Your task to perform on an android device: change timer sound Image 0: 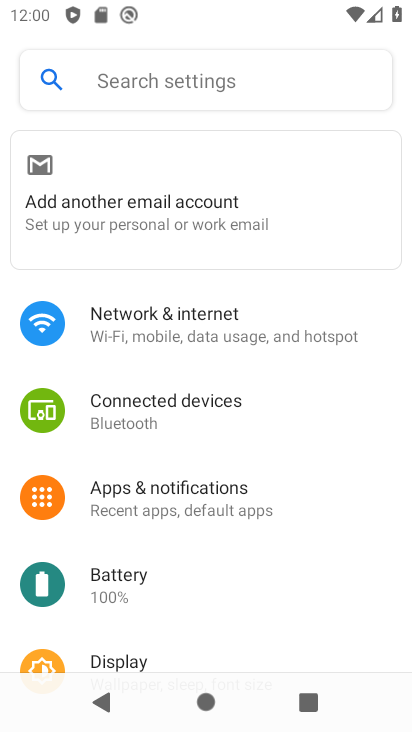
Step 0: drag from (240, 576) to (324, 90)
Your task to perform on an android device: change timer sound Image 1: 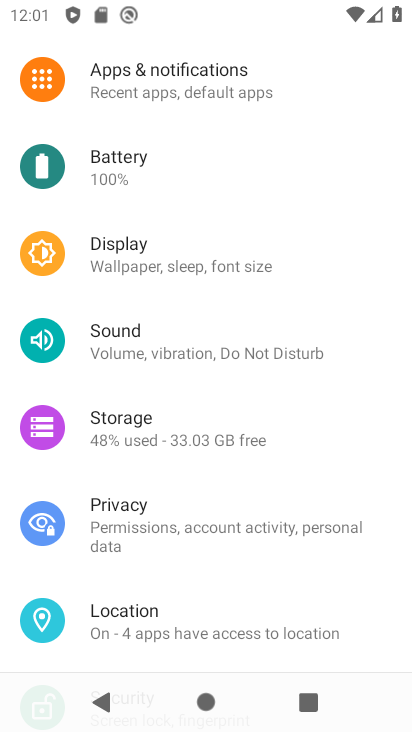
Step 1: press home button
Your task to perform on an android device: change timer sound Image 2: 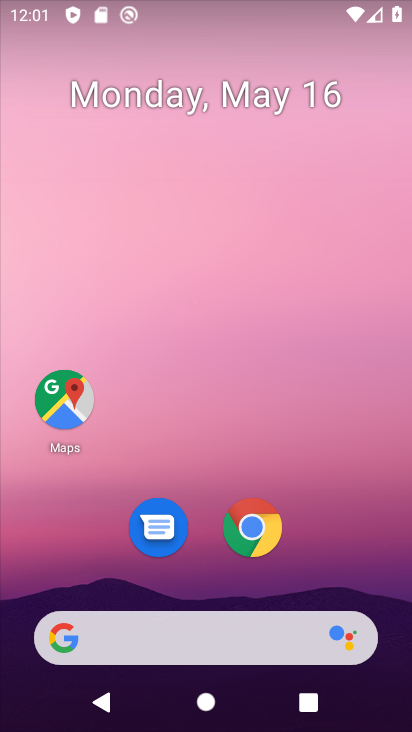
Step 2: drag from (206, 580) to (294, 6)
Your task to perform on an android device: change timer sound Image 3: 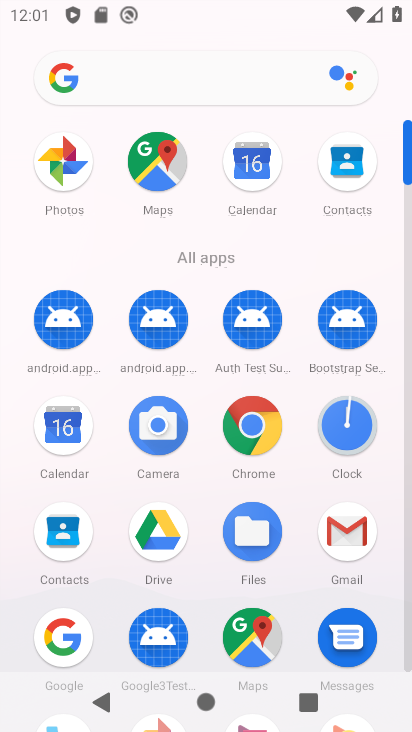
Step 3: click (347, 428)
Your task to perform on an android device: change timer sound Image 4: 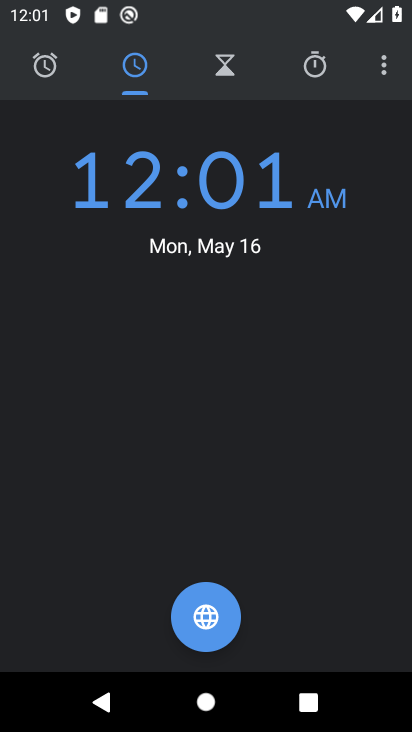
Step 4: click (385, 67)
Your task to perform on an android device: change timer sound Image 5: 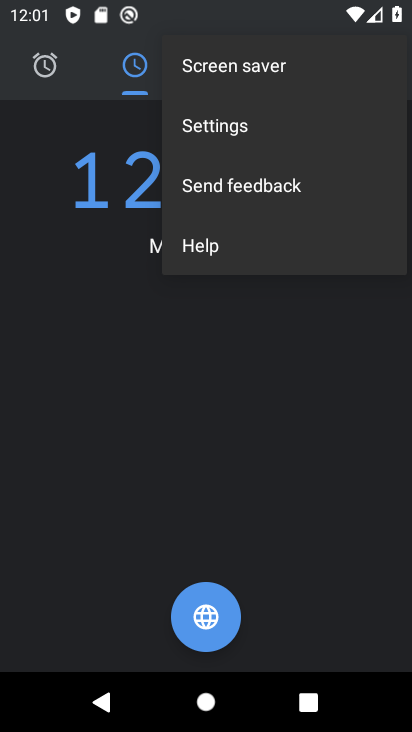
Step 5: click (193, 123)
Your task to perform on an android device: change timer sound Image 6: 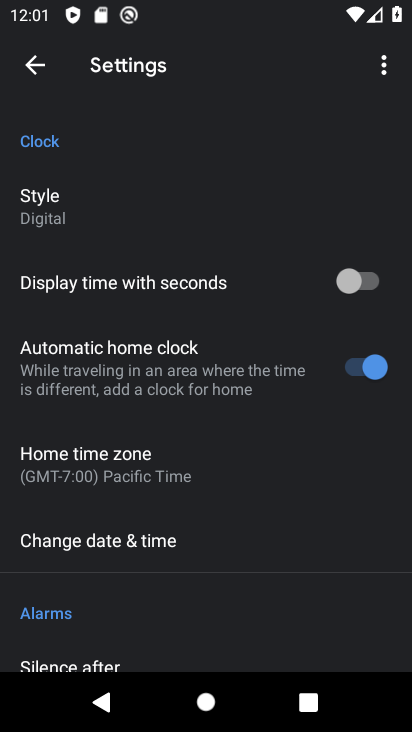
Step 6: drag from (152, 633) to (263, 108)
Your task to perform on an android device: change timer sound Image 7: 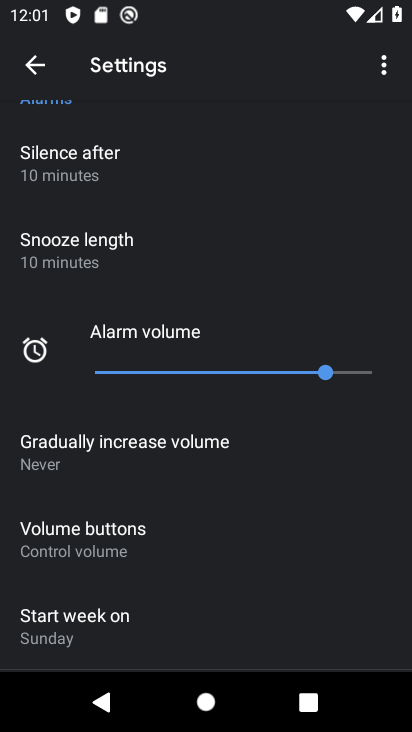
Step 7: drag from (150, 564) to (238, 111)
Your task to perform on an android device: change timer sound Image 8: 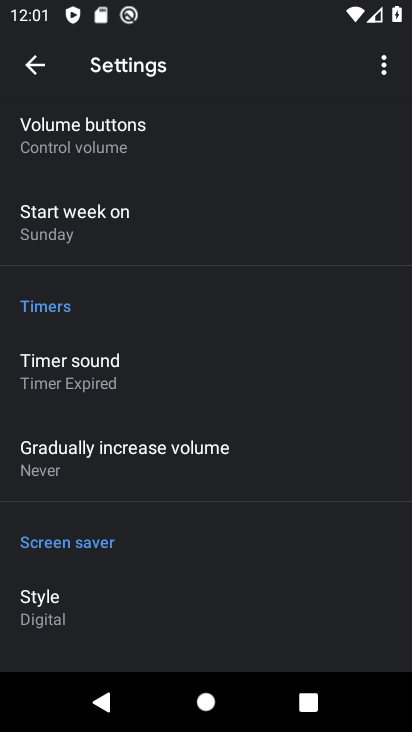
Step 8: click (105, 375)
Your task to perform on an android device: change timer sound Image 9: 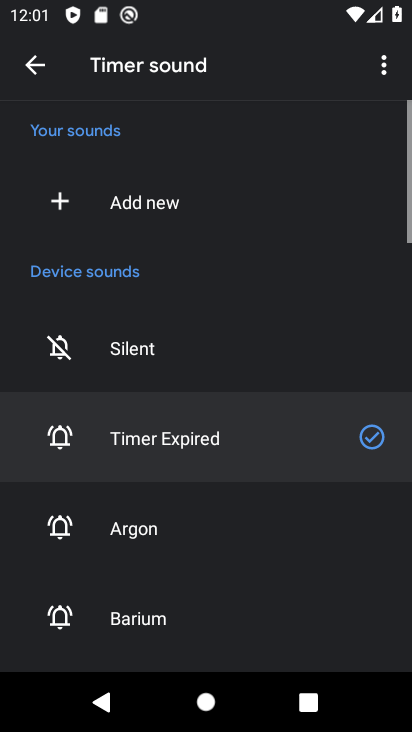
Step 9: click (164, 533)
Your task to perform on an android device: change timer sound Image 10: 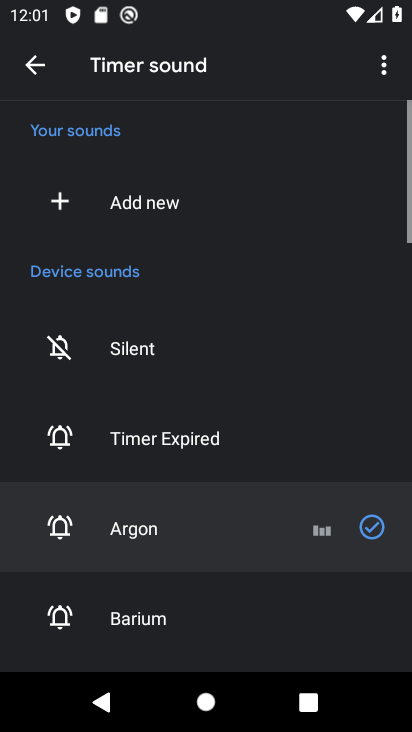
Step 10: task complete